Your task to perform on an android device: Check the weather Image 0: 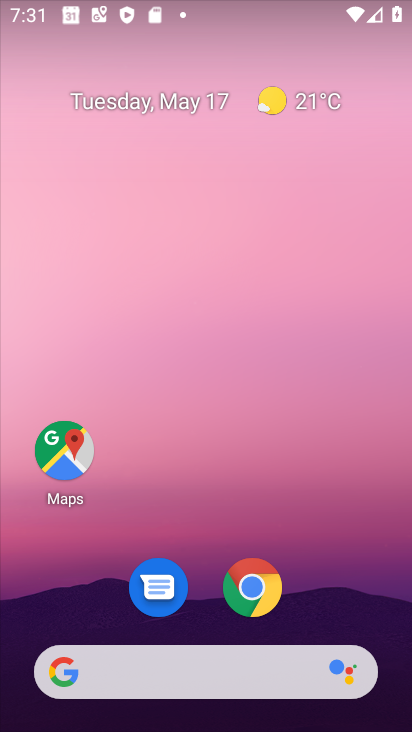
Step 0: click (177, 693)
Your task to perform on an android device: Check the weather Image 1: 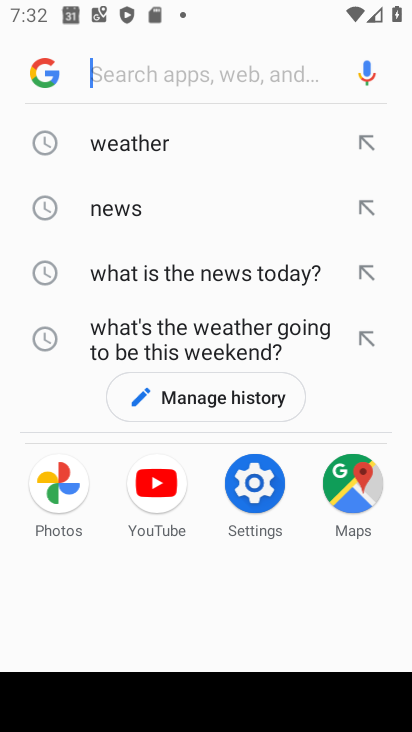
Step 1: click (206, 148)
Your task to perform on an android device: Check the weather Image 2: 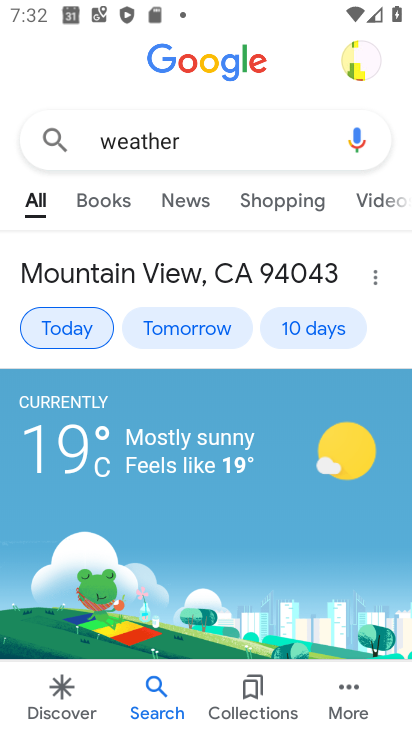
Step 2: task complete